Your task to perform on an android device: Search for the best fantasy books on Goodreads. Image 0: 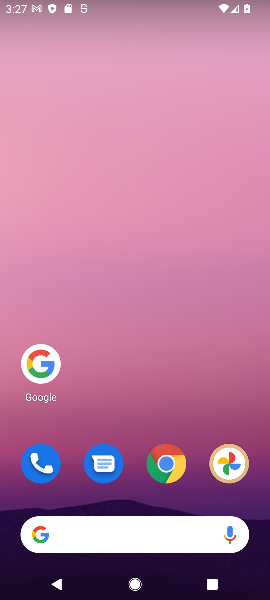
Step 0: click (52, 358)
Your task to perform on an android device: Search for the best fantasy books on Goodreads. Image 1: 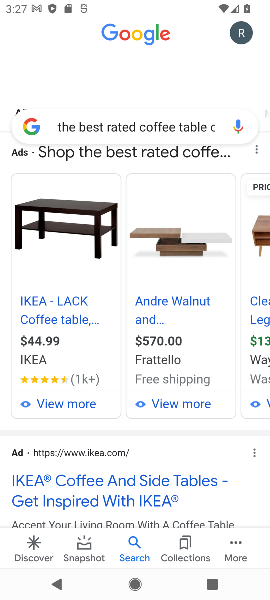
Step 1: click (177, 128)
Your task to perform on an android device: Search for the best fantasy books on Goodreads. Image 2: 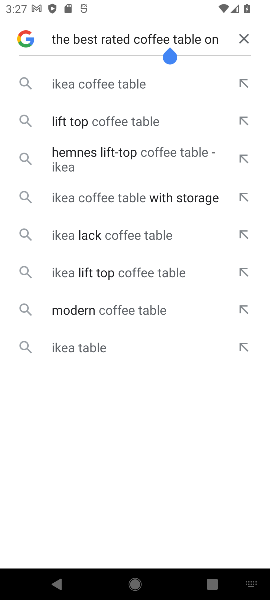
Step 2: click (235, 29)
Your task to perform on an android device: Search for the best fantasy books on Goodreads. Image 3: 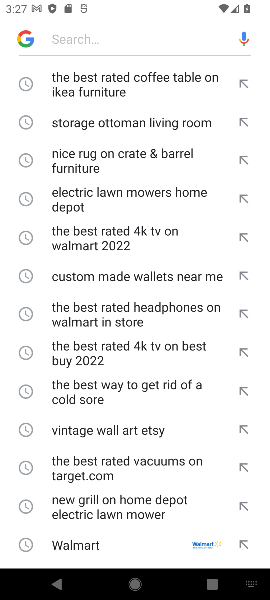
Step 3: click (132, 37)
Your task to perform on an android device: Search for the best fantasy books on Goodreads. Image 4: 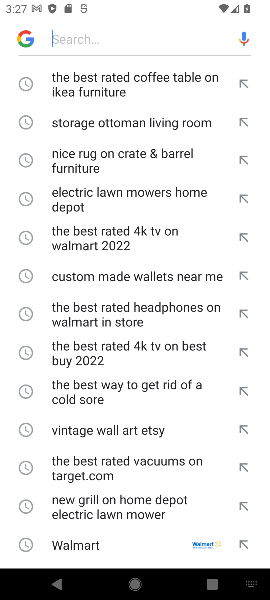
Step 4: type " the best fantasy books on Goodreads "
Your task to perform on an android device: Search for the best fantasy books on Goodreads. Image 5: 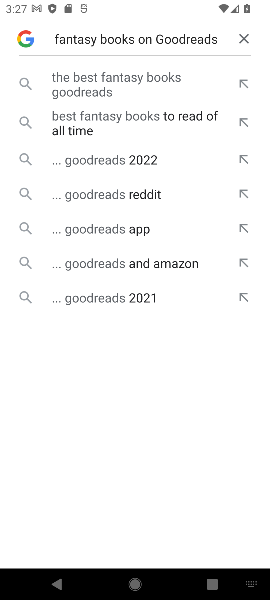
Step 5: click (74, 92)
Your task to perform on an android device: Search for the best fantasy books on Goodreads. Image 6: 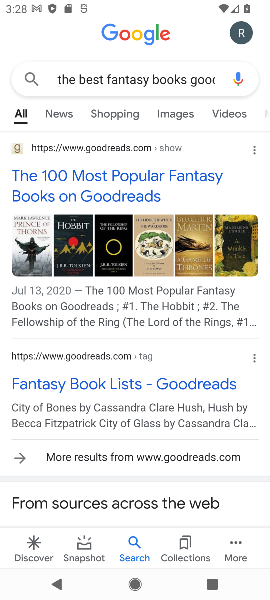
Step 6: task complete